Your task to perform on an android device: visit the assistant section in the google photos Image 0: 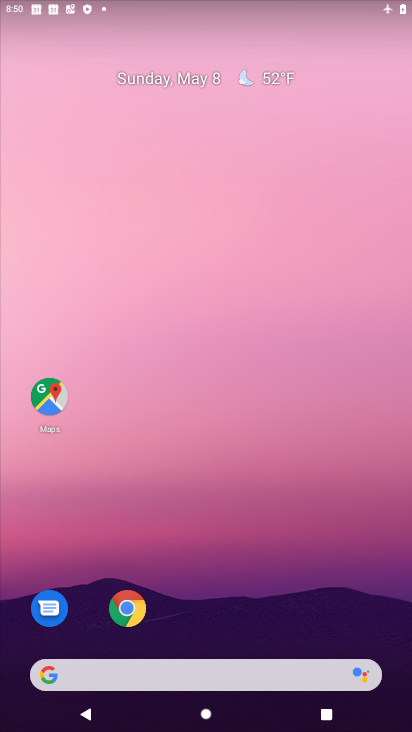
Step 0: drag from (287, 591) to (287, 6)
Your task to perform on an android device: visit the assistant section in the google photos Image 1: 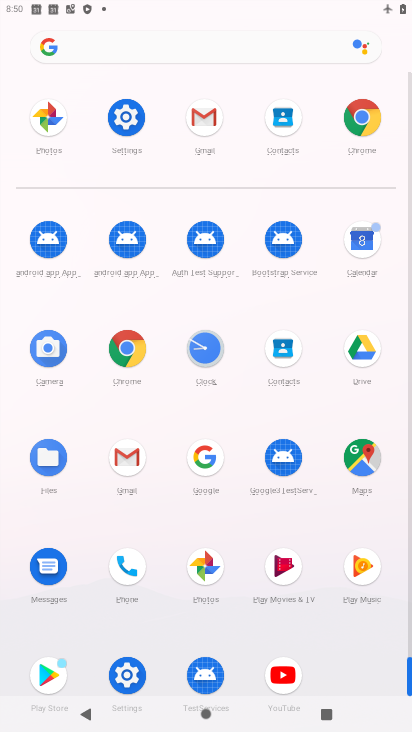
Step 1: click (201, 562)
Your task to perform on an android device: visit the assistant section in the google photos Image 2: 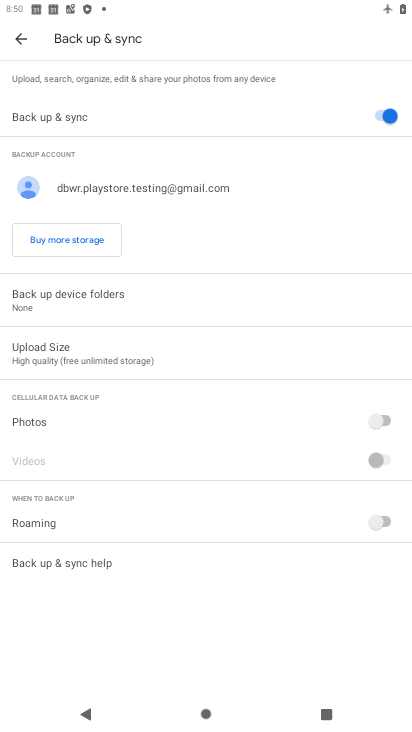
Step 2: click (30, 41)
Your task to perform on an android device: visit the assistant section in the google photos Image 3: 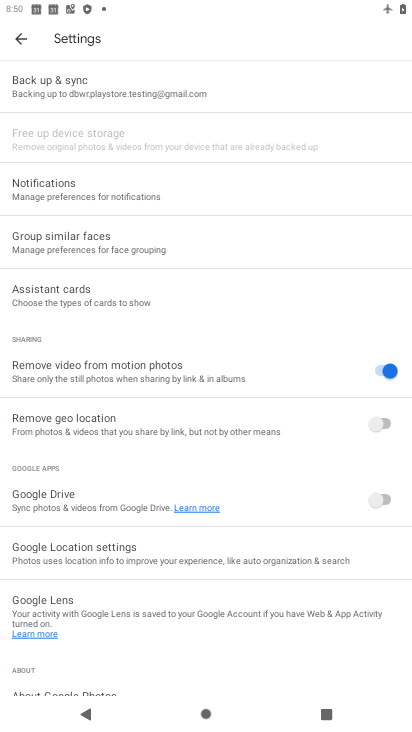
Step 3: click (30, 28)
Your task to perform on an android device: visit the assistant section in the google photos Image 4: 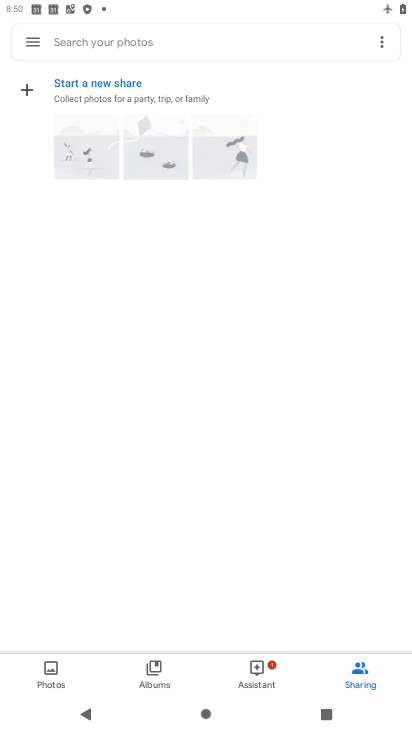
Step 4: click (240, 679)
Your task to perform on an android device: visit the assistant section in the google photos Image 5: 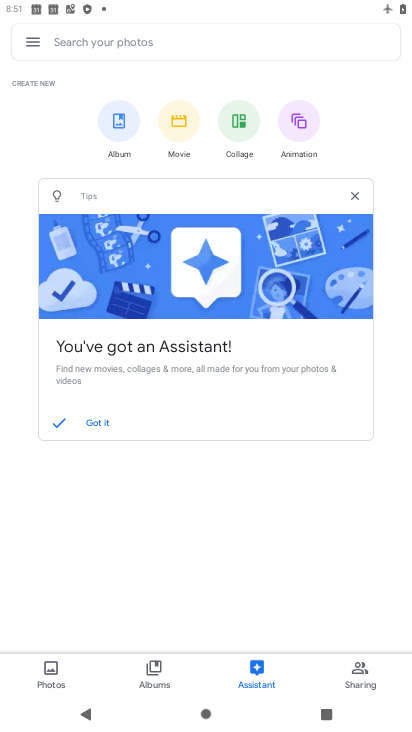
Step 5: drag from (316, 572) to (346, 298)
Your task to perform on an android device: visit the assistant section in the google photos Image 6: 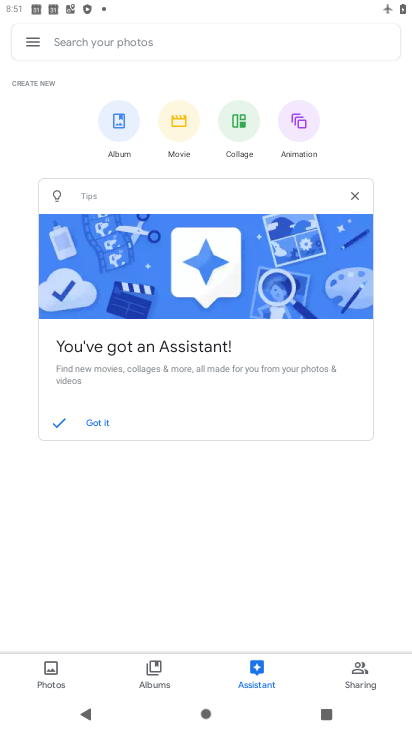
Step 6: click (80, 424)
Your task to perform on an android device: visit the assistant section in the google photos Image 7: 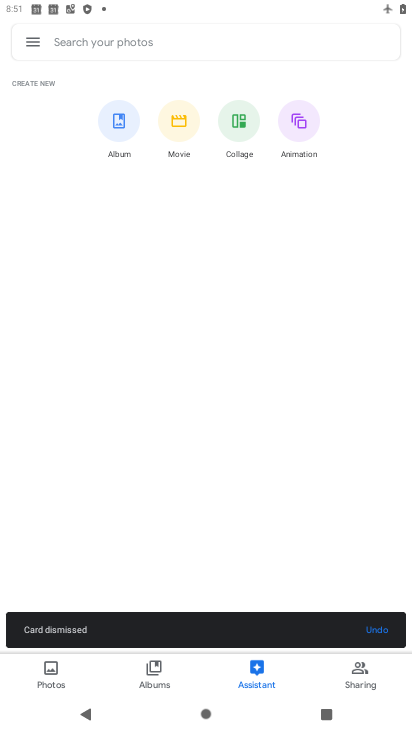
Step 7: task complete